Your task to perform on an android device: Add "logitech g pro" to the cart on target.com Image 0: 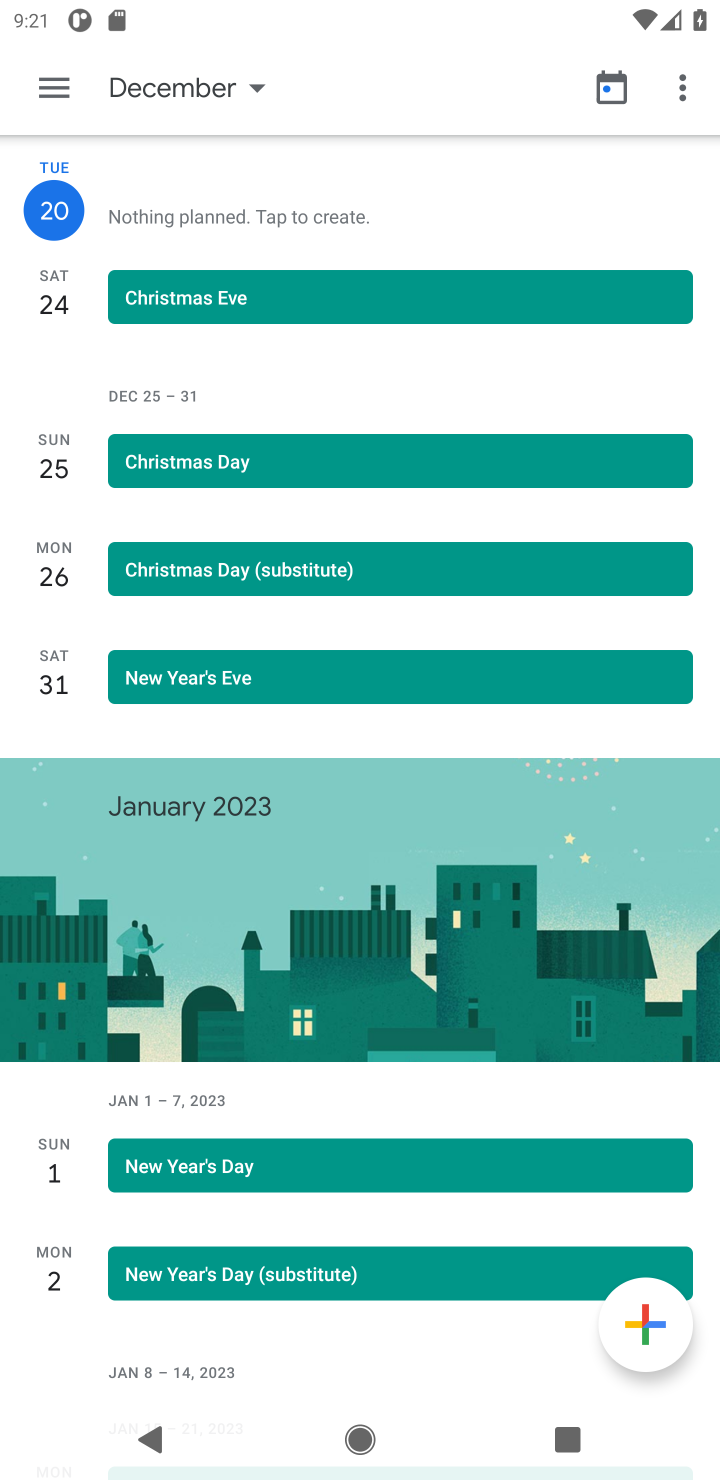
Step 0: press home button
Your task to perform on an android device: Add "logitech g pro" to the cart on target.com Image 1: 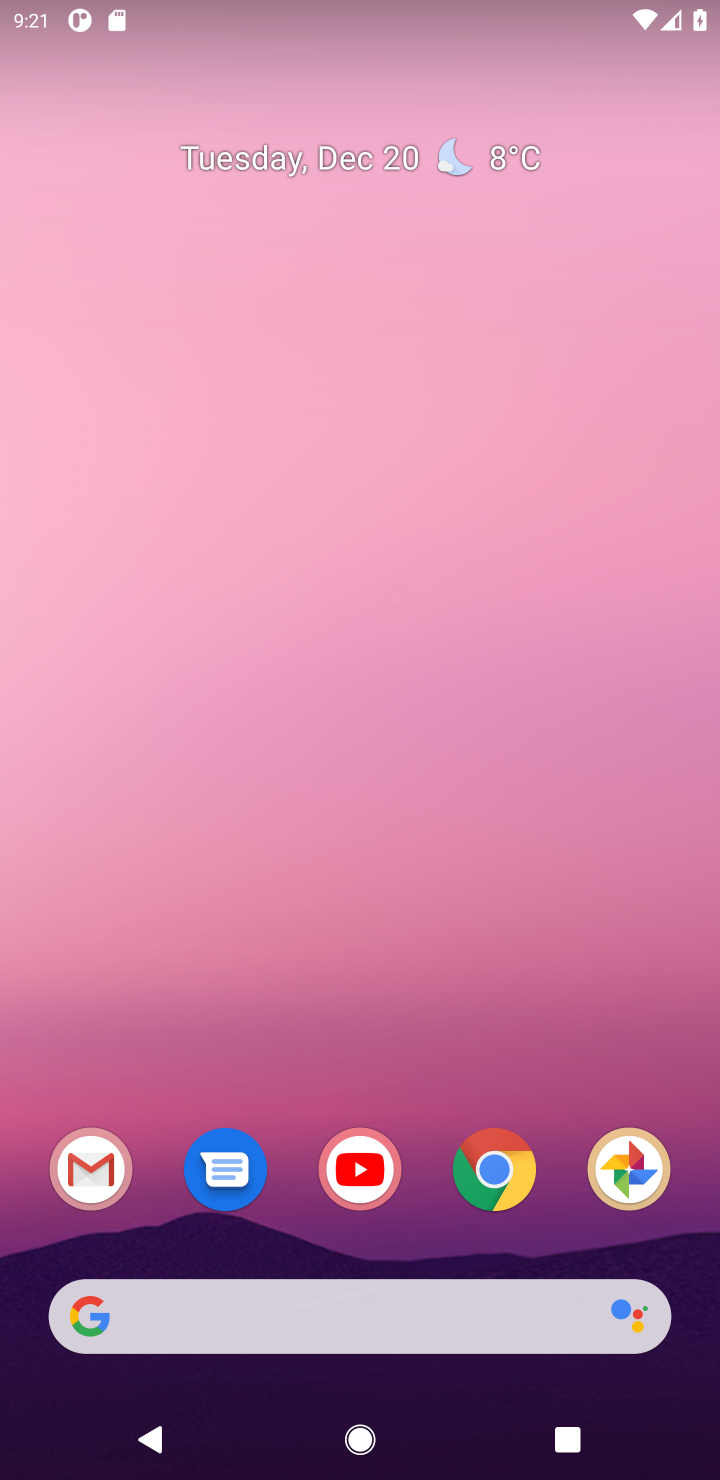
Step 1: click (508, 1157)
Your task to perform on an android device: Add "logitech g pro" to the cart on target.com Image 2: 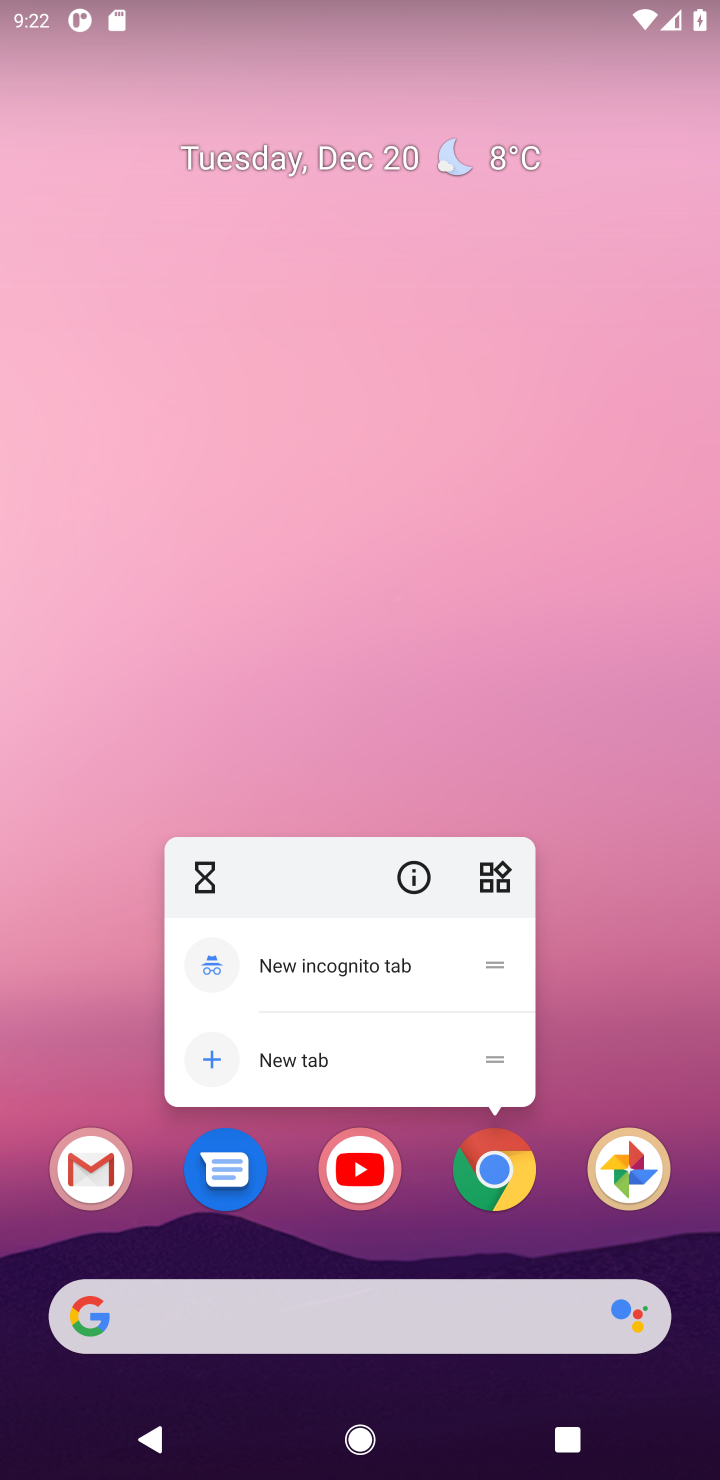
Step 2: click (514, 1173)
Your task to perform on an android device: Add "logitech g pro" to the cart on target.com Image 3: 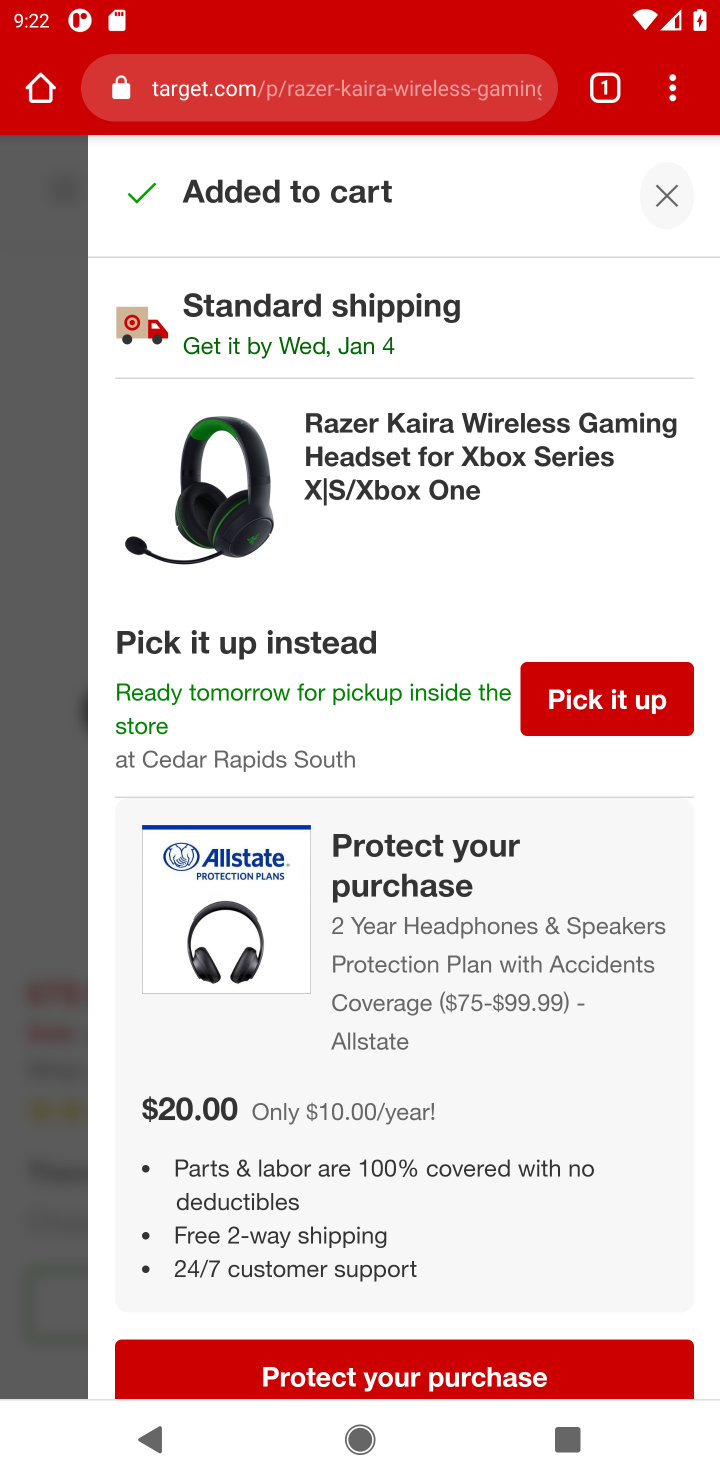
Step 3: click (685, 226)
Your task to perform on an android device: Add "logitech g pro" to the cart on target.com Image 4: 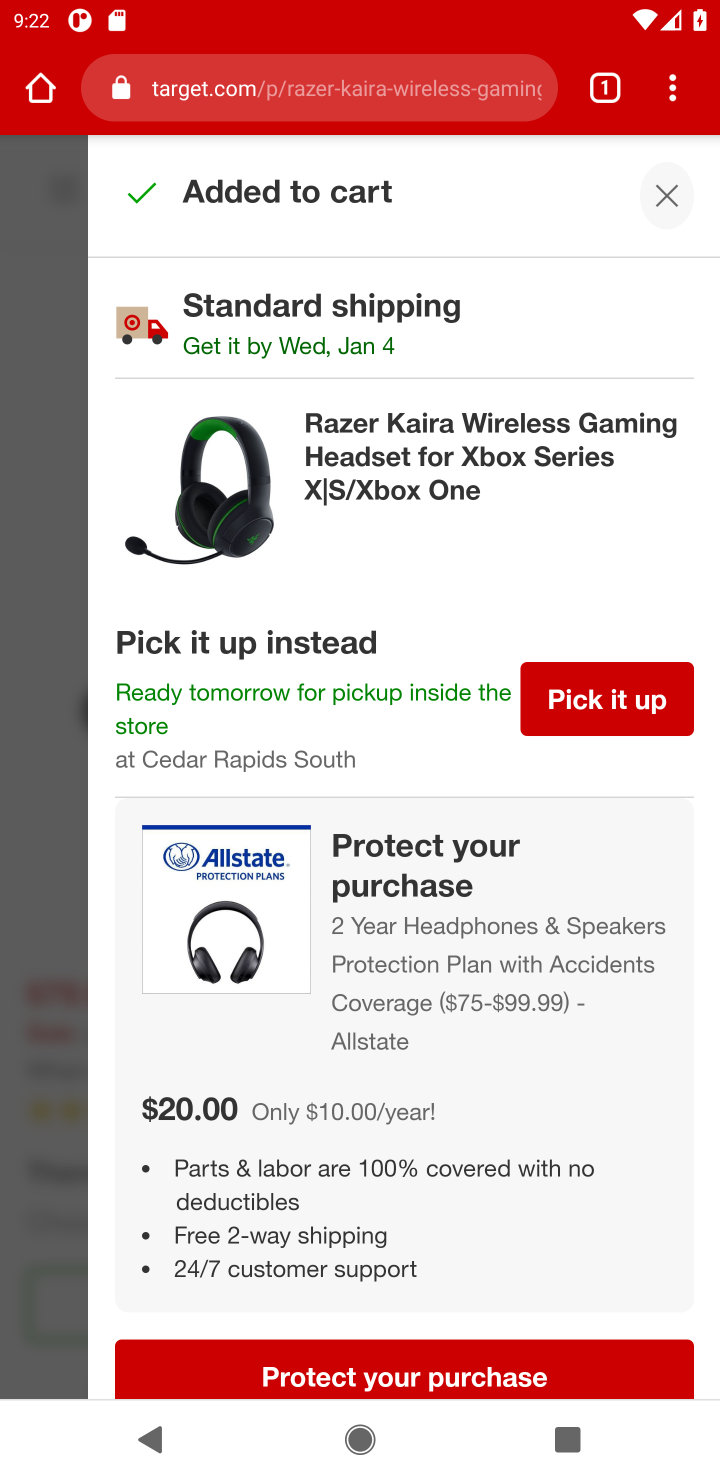
Step 4: click (685, 226)
Your task to perform on an android device: Add "logitech g pro" to the cart on target.com Image 5: 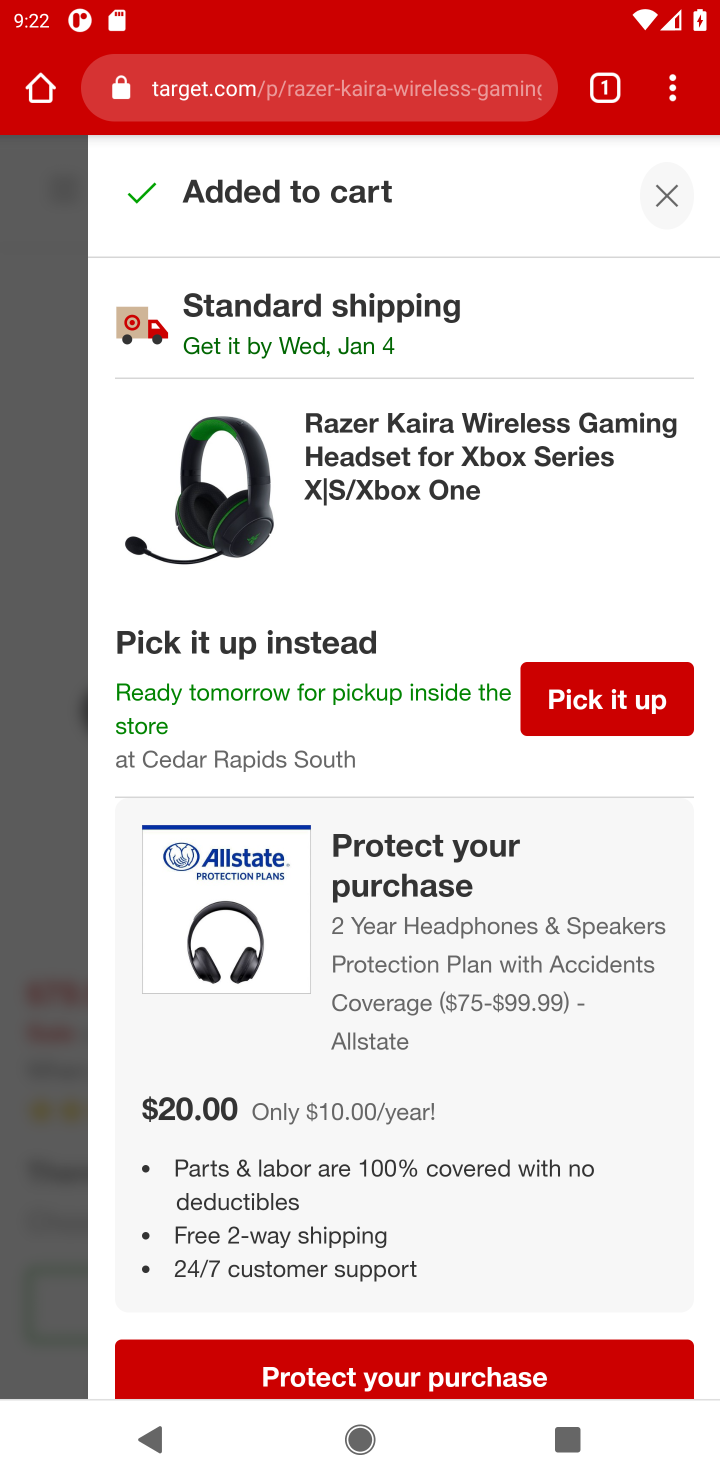
Step 5: click (667, 200)
Your task to perform on an android device: Add "logitech g pro" to the cart on target.com Image 6: 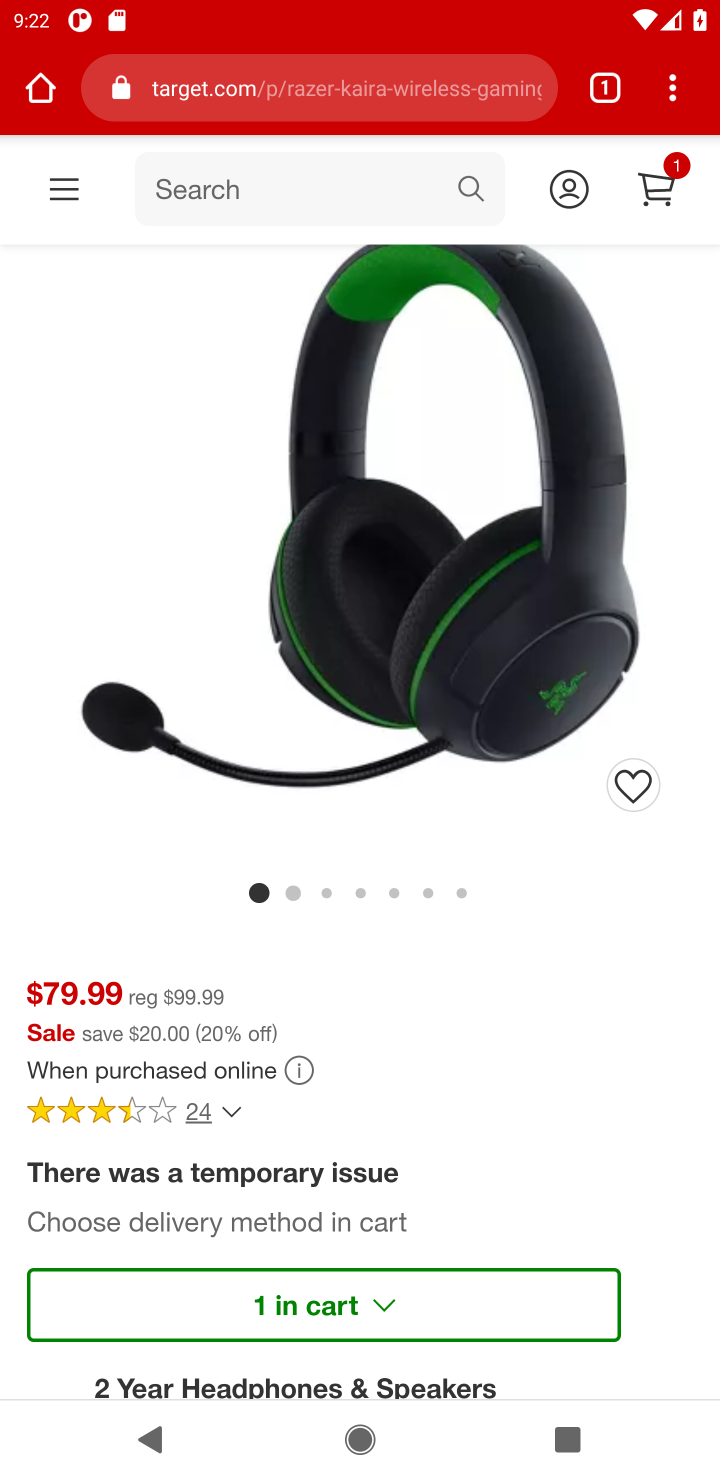
Step 6: click (481, 200)
Your task to perform on an android device: Add "logitech g pro" to the cart on target.com Image 7: 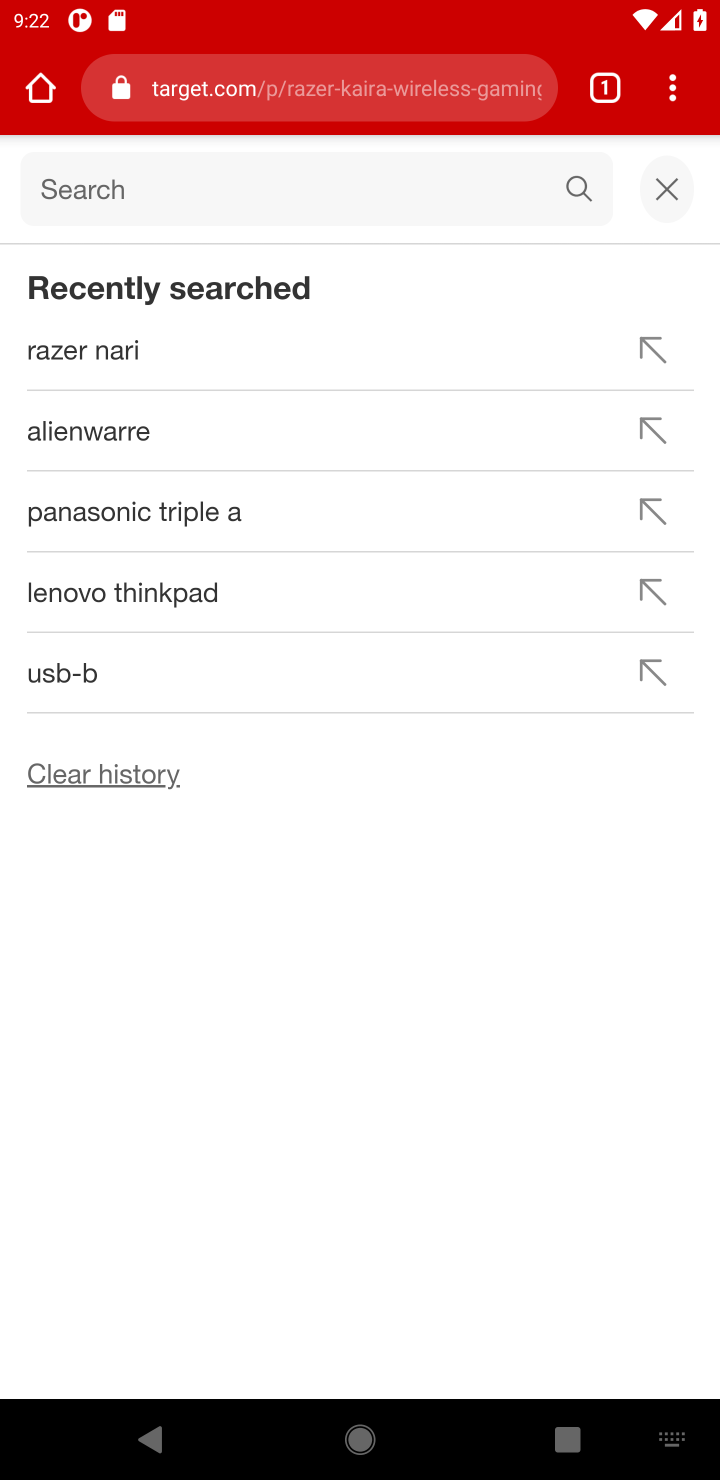
Step 7: type "logitech g pro"
Your task to perform on an android device: Add "logitech g pro" to the cart on target.com Image 8: 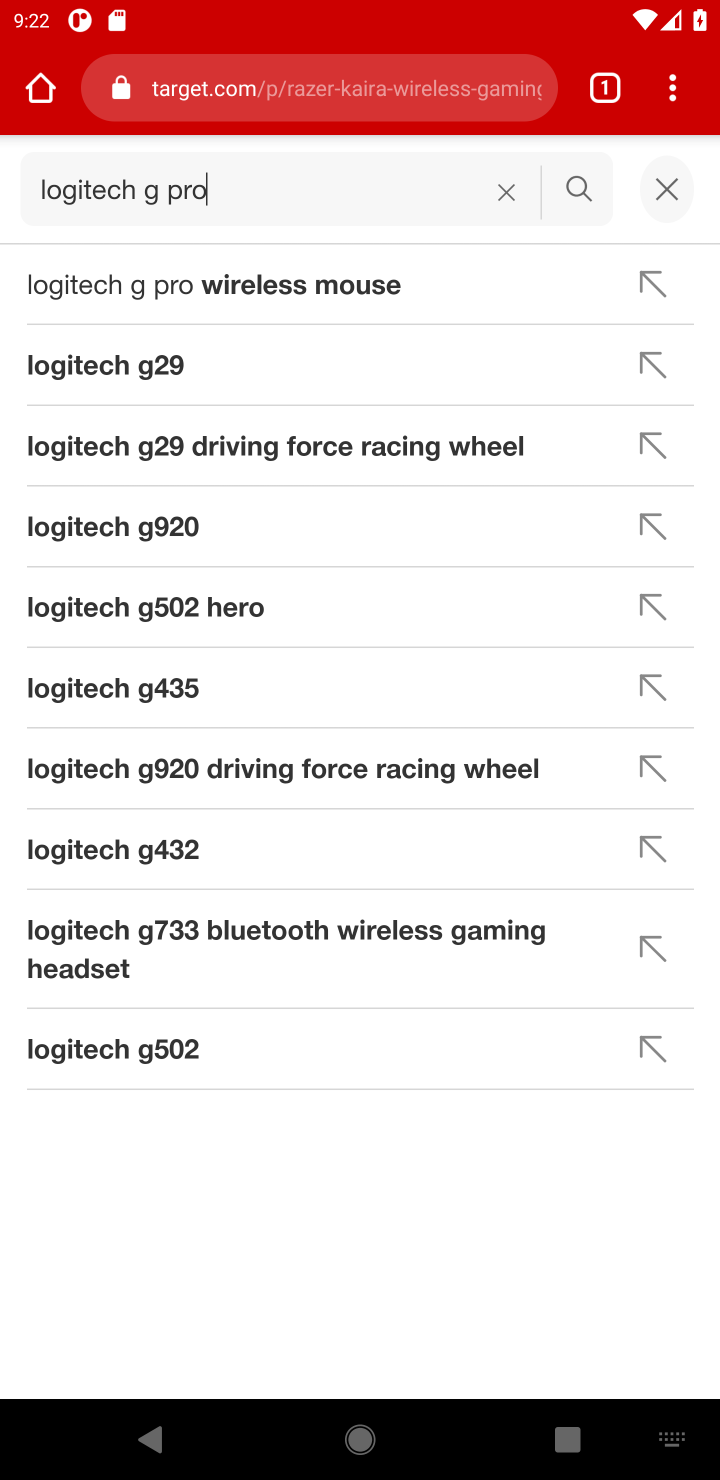
Step 8: click (556, 196)
Your task to perform on an android device: Add "logitech g pro" to the cart on target.com Image 9: 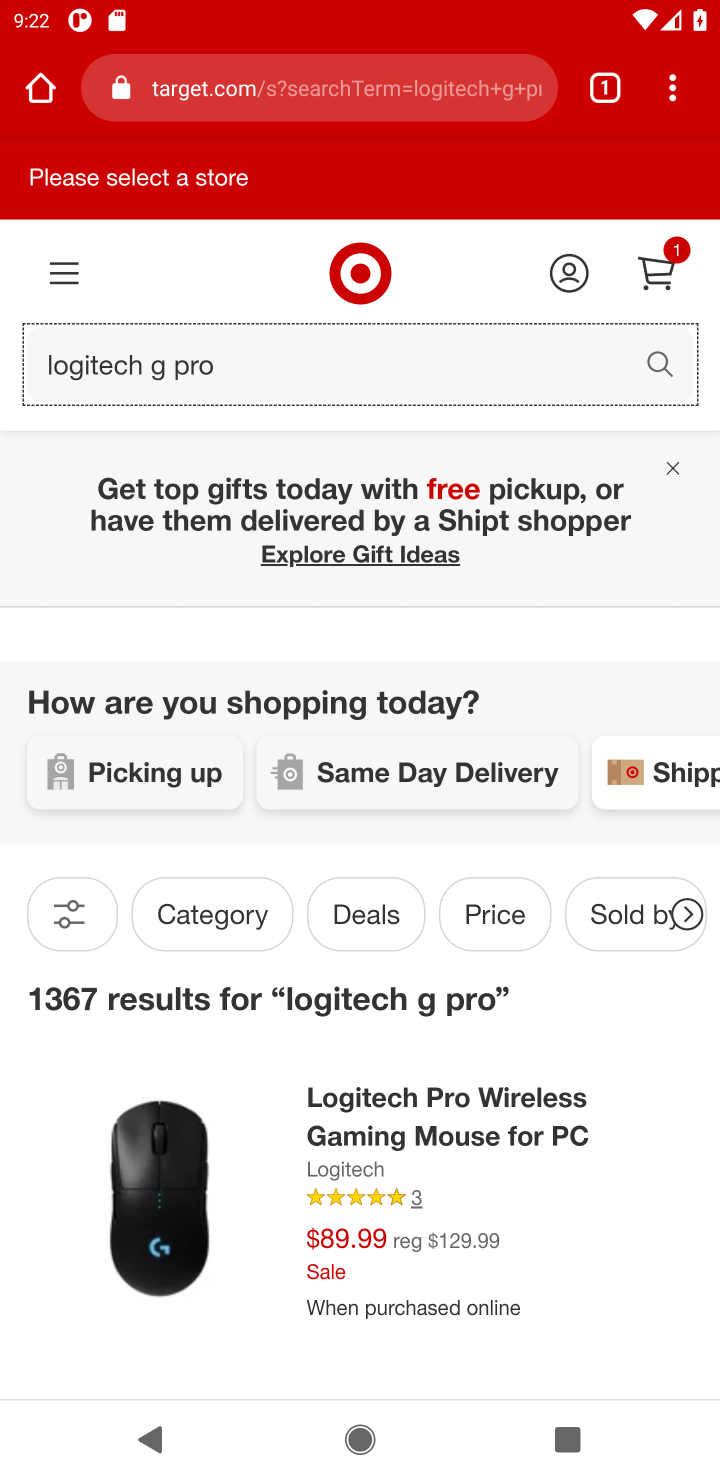
Step 9: click (428, 1087)
Your task to perform on an android device: Add "logitech g pro" to the cart on target.com Image 10: 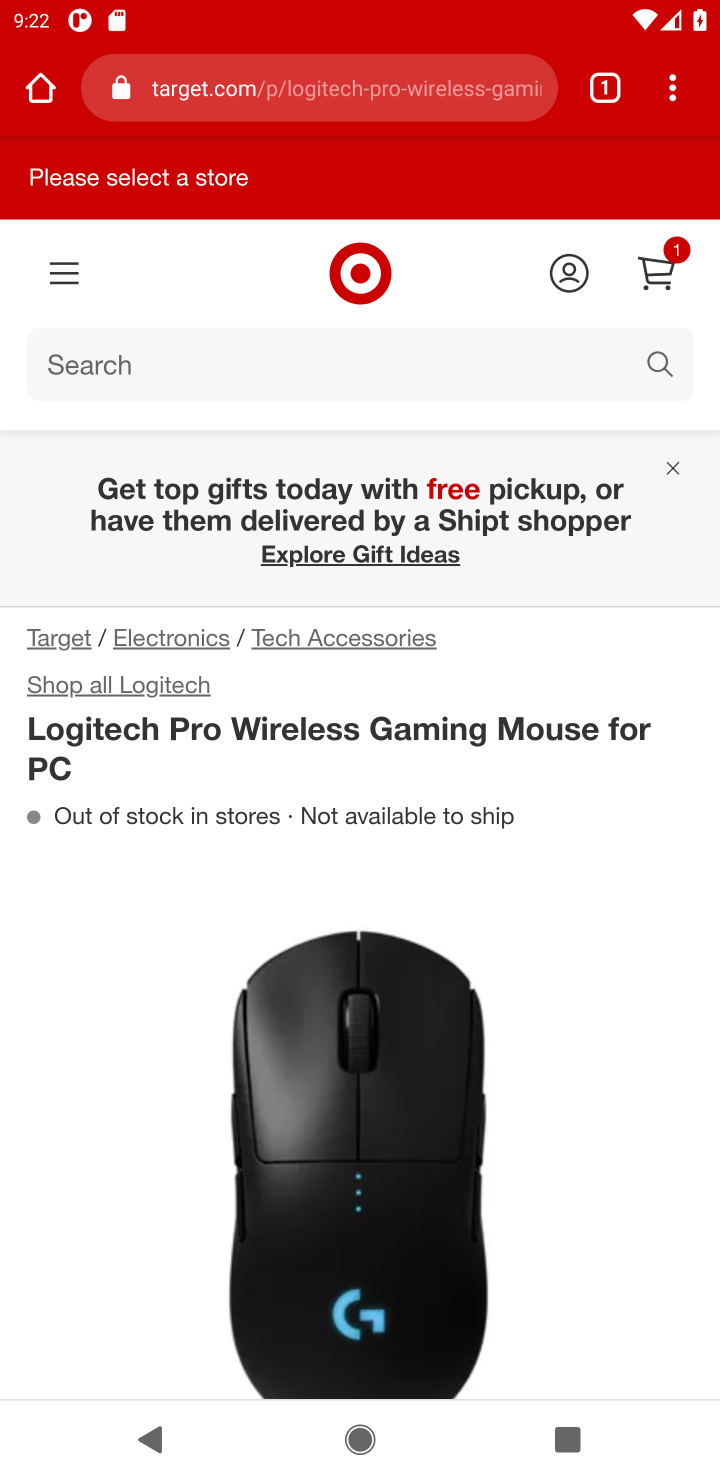
Step 10: drag from (494, 1183) to (472, 673)
Your task to perform on an android device: Add "logitech g pro" to the cart on target.com Image 11: 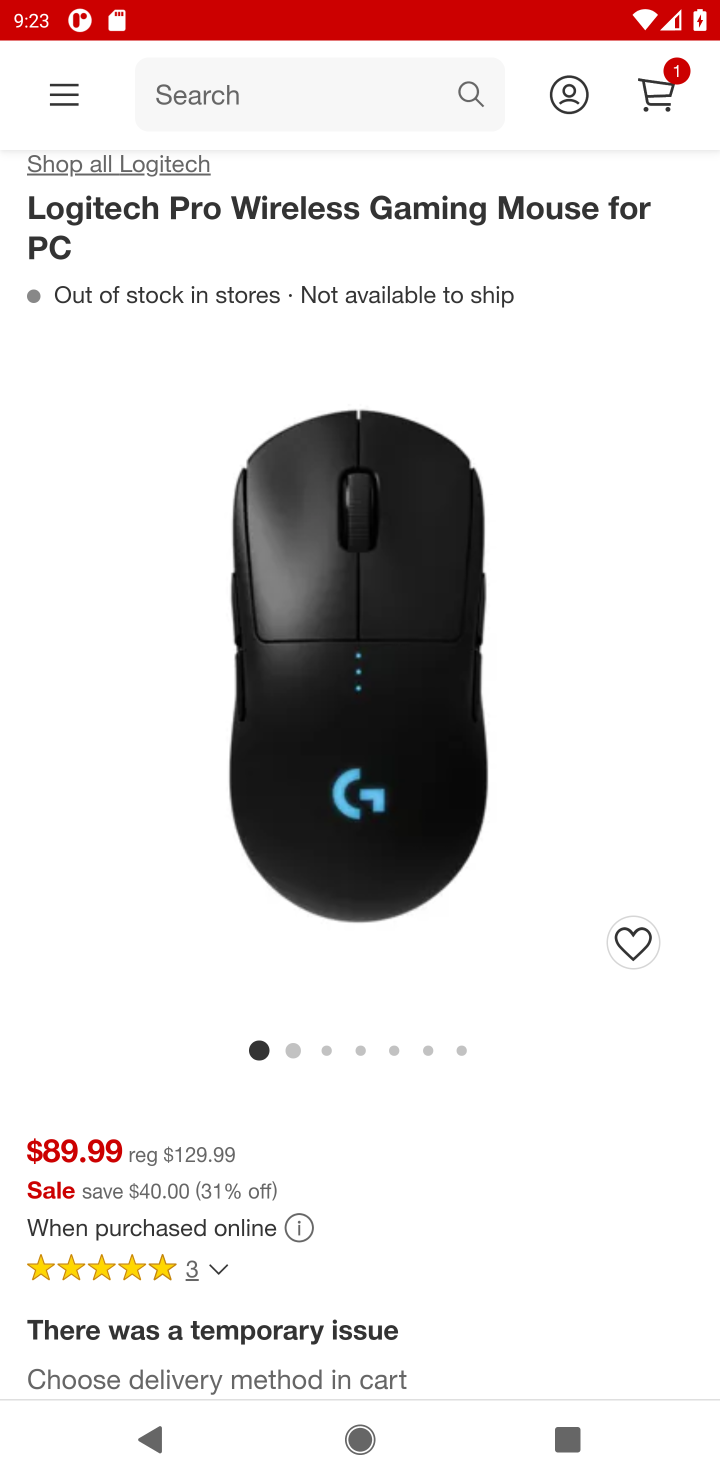
Step 11: drag from (536, 1214) to (499, 761)
Your task to perform on an android device: Add "logitech g pro" to the cart on target.com Image 12: 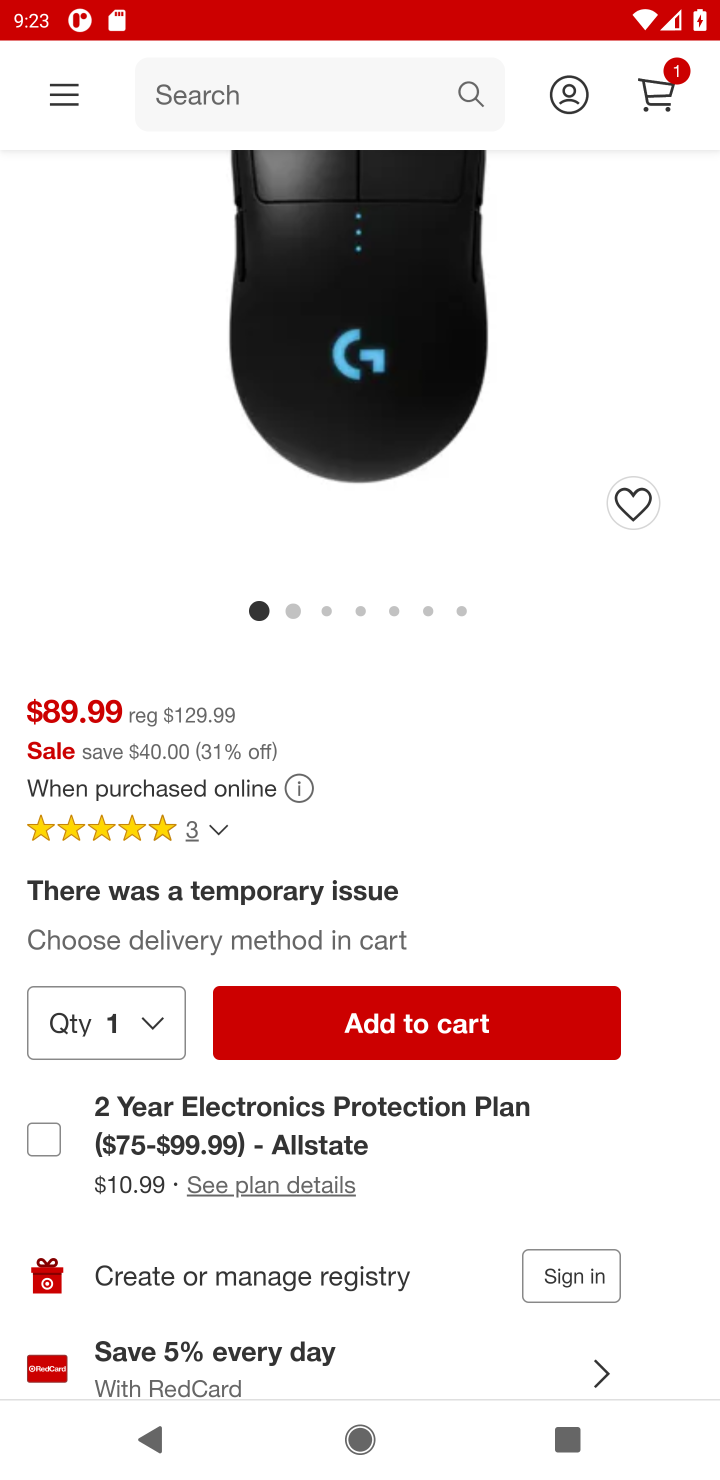
Step 12: click (497, 1007)
Your task to perform on an android device: Add "logitech g pro" to the cart on target.com Image 13: 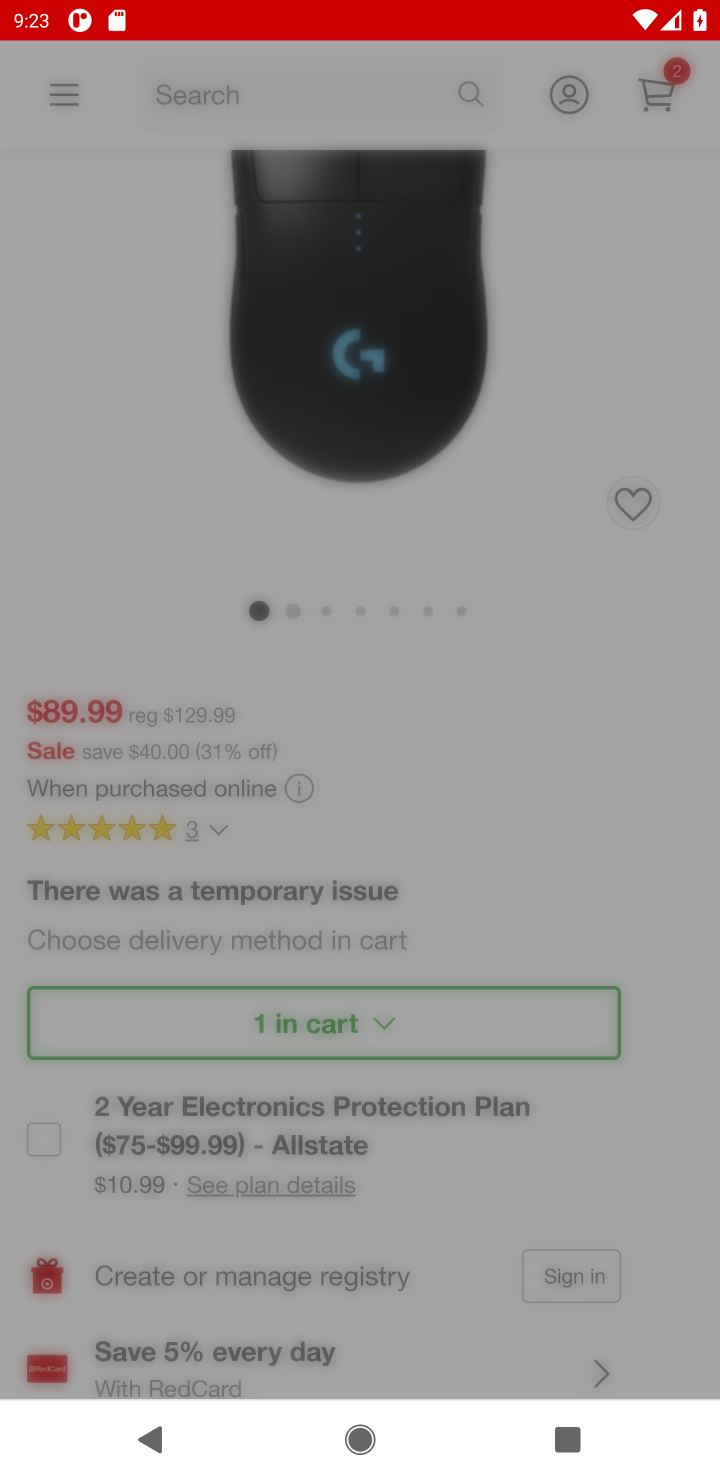
Step 13: task complete